Your task to perform on an android device: turn off smart reply in the gmail app Image 0: 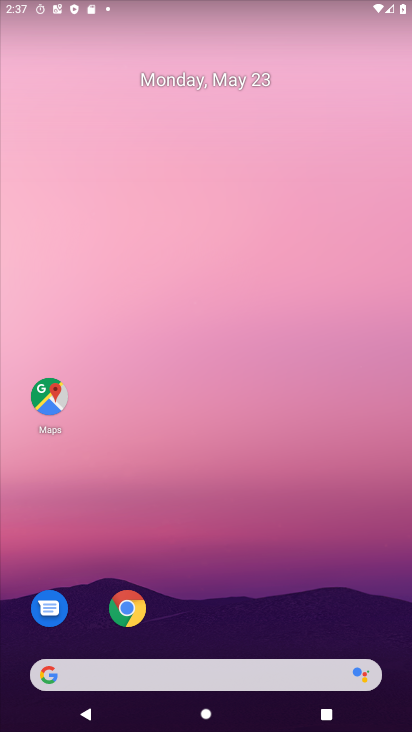
Step 0: drag from (193, 522) to (195, 136)
Your task to perform on an android device: turn off smart reply in the gmail app Image 1: 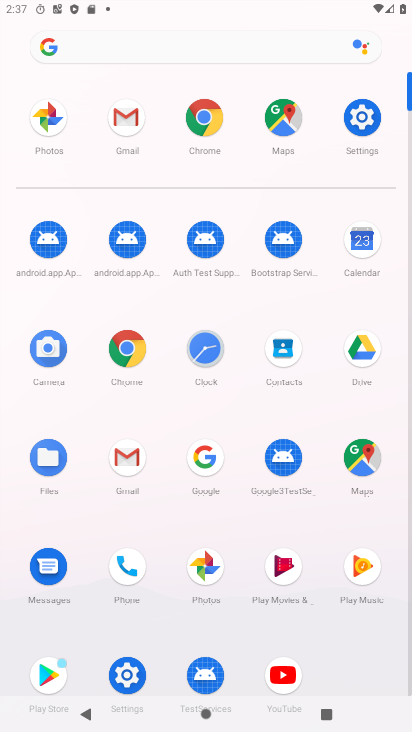
Step 1: click (138, 465)
Your task to perform on an android device: turn off smart reply in the gmail app Image 2: 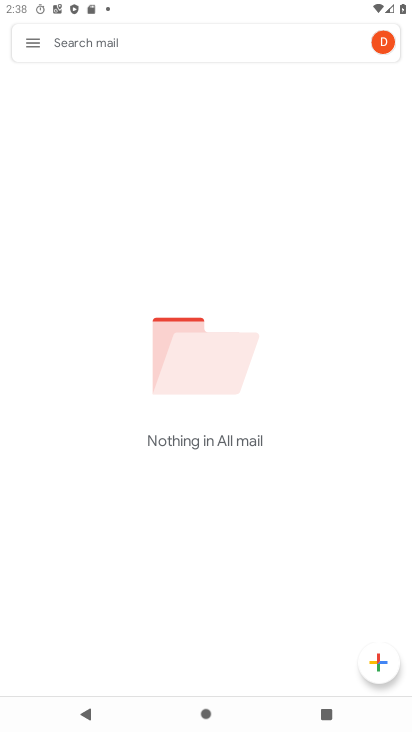
Step 2: click (30, 30)
Your task to perform on an android device: turn off smart reply in the gmail app Image 3: 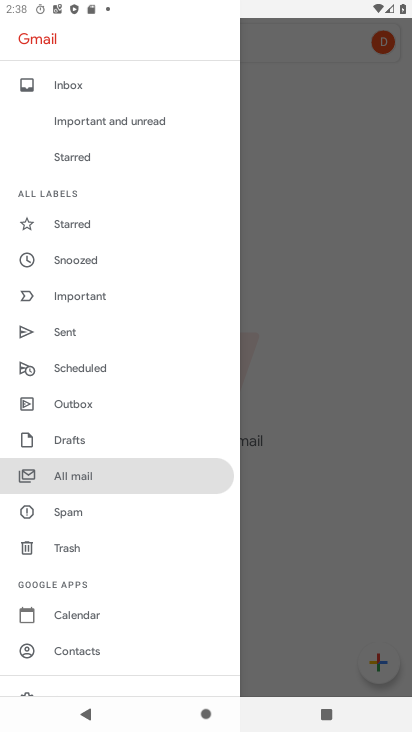
Step 3: drag from (84, 591) to (115, 223)
Your task to perform on an android device: turn off smart reply in the gmail app Image 4: 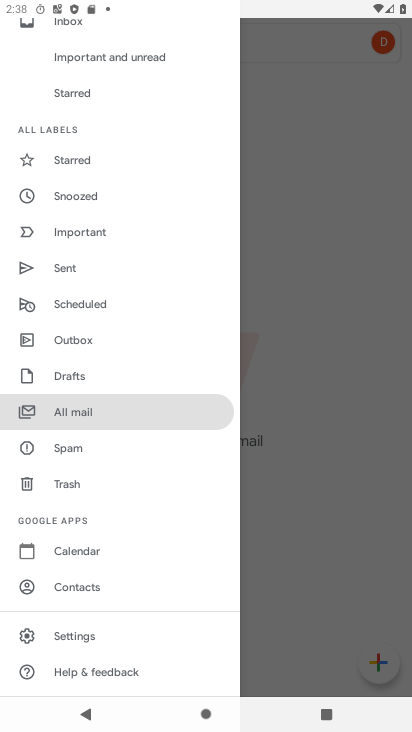
Step 4: click (75, 634)
Your task to perform on an android device: turn off smart reply in the gmail app Image 5: 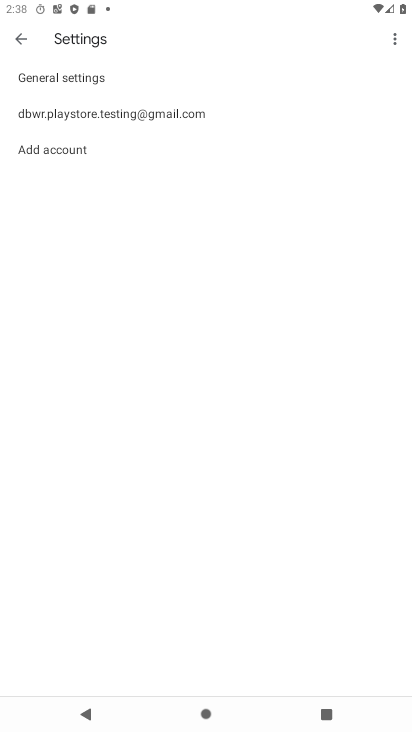
Step 5: click (135, 111)
Your task to perform on an android device: turn off smart reply in the gmail app Image 6: 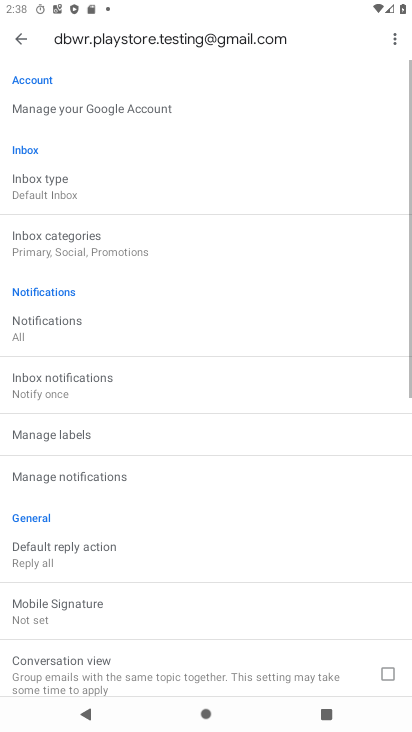
Step 6: drag from (137, 585) to (201, 208)
Your task to perform on an android device: turn off smart reply in the gmail app Image 7: 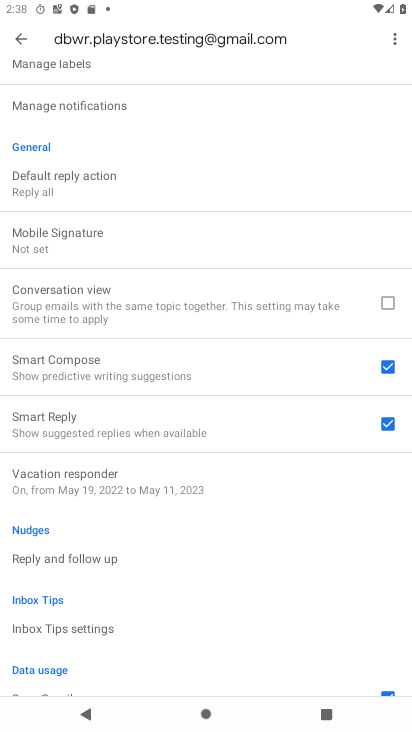
Step 7: click (367, 366)
Your task to perform on an android device: turn off smart reply in the gmail app Image 8: 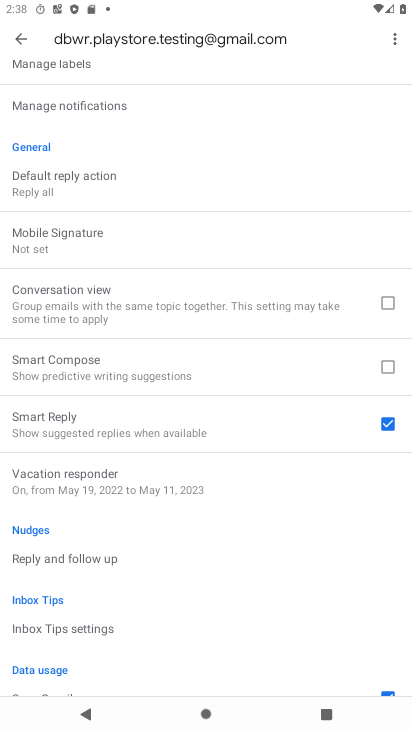
Step 8: click (391, 419)
Your task to perform on an android device: turn off smart reply in the gmail app Image 9: 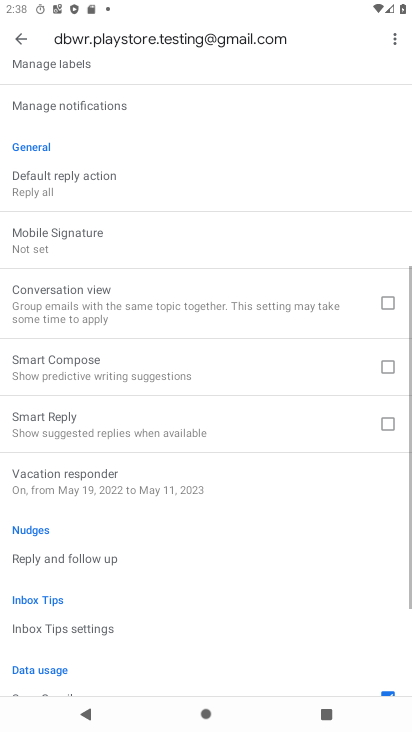
Step 9: task complete